Your task to perform on an android device: Open internet settings Image 0: 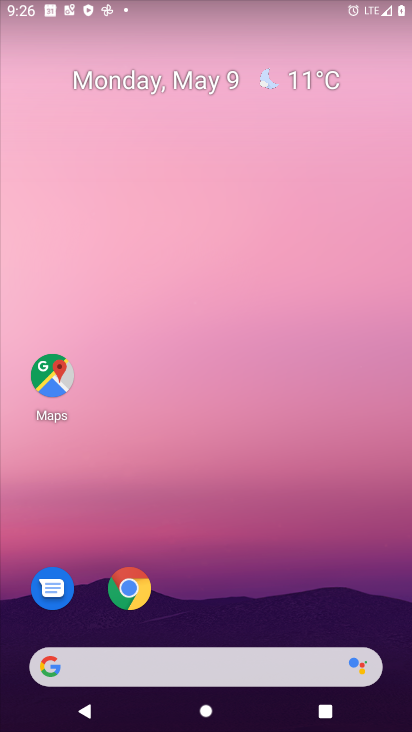
Step 0: drag from (387, 638) to (278, 81)
Your task to perform on an android device: Open internet settings Image 1: 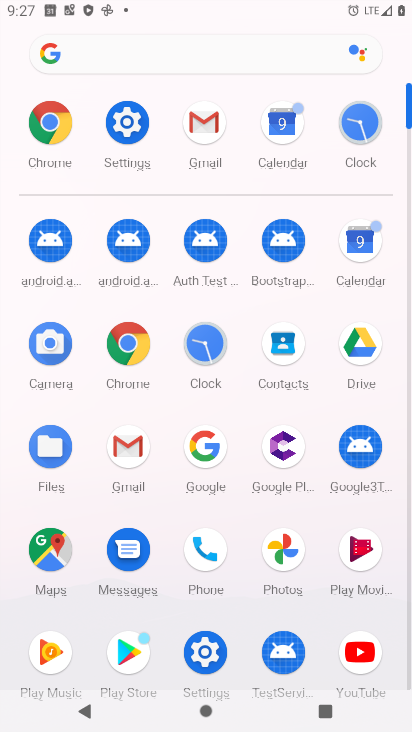
Step 1: click (119, 115)
Your task to perform on an android device: Open internet settings Image 2: 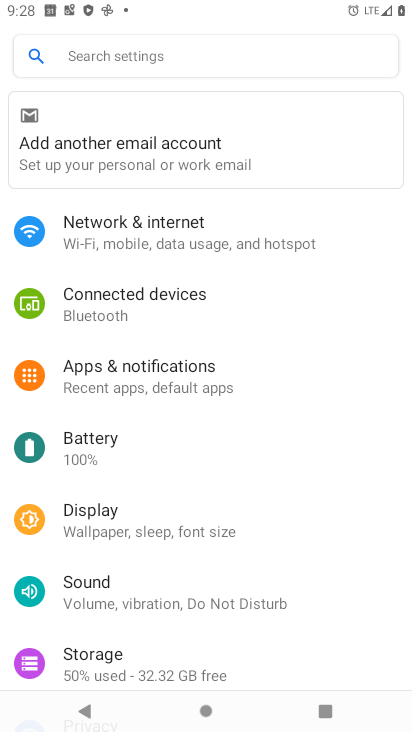
Step 2: click (150, 229)
Your task to perform on an android device: Open internet settings Image 3: 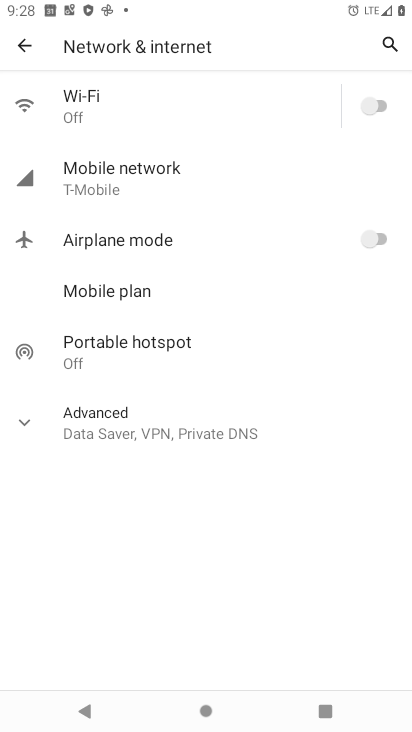
Step 3: task complete